Your task to perform on an android device: open a new tab in the chrome app Image 0: 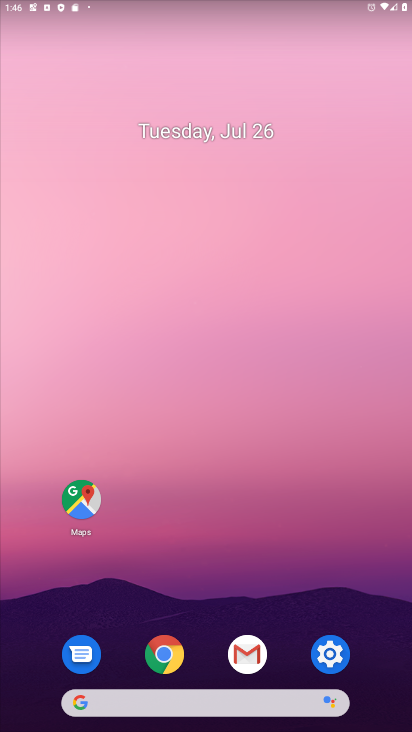
Step 0: click (165, 654)
Your task to perform on an android device: open a new tab in the chrome app Image 1: 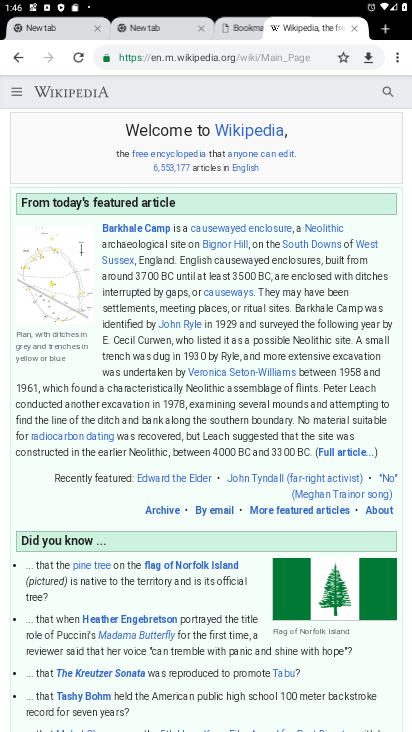
Step 1: click (403, 57)
Your task to perform on an android device: open a new tab in the chrome app Image 2: 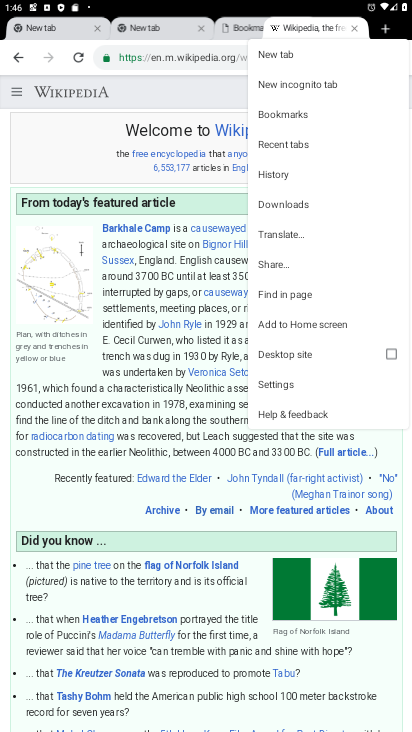
Step 2: click (278, 52)
Your task to perform on an android device: open a new tab in the chrome app Image 3: 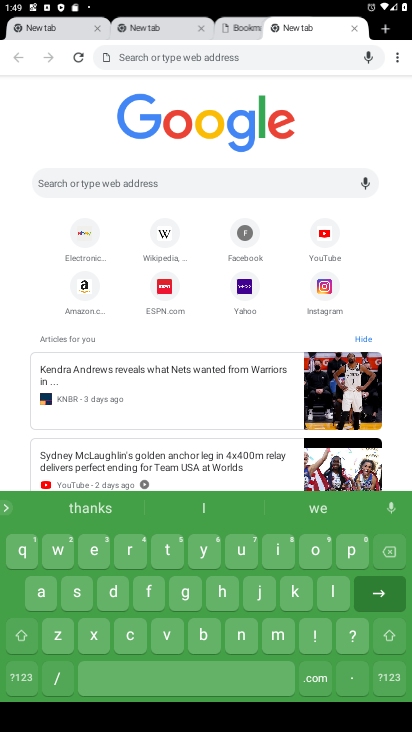
Step 3: task complete